Your task to perform on an android device: turn smart compose on in the gmail app Image 0: 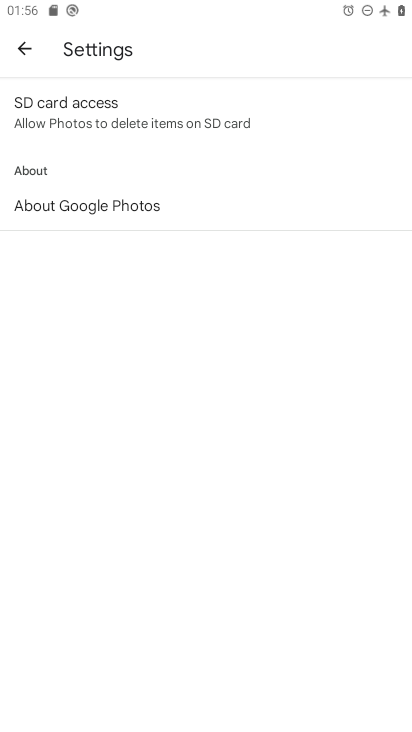
Step 0: press home button
Your task to perform on an android device: turn smart compose on in the gmail app Image 1: 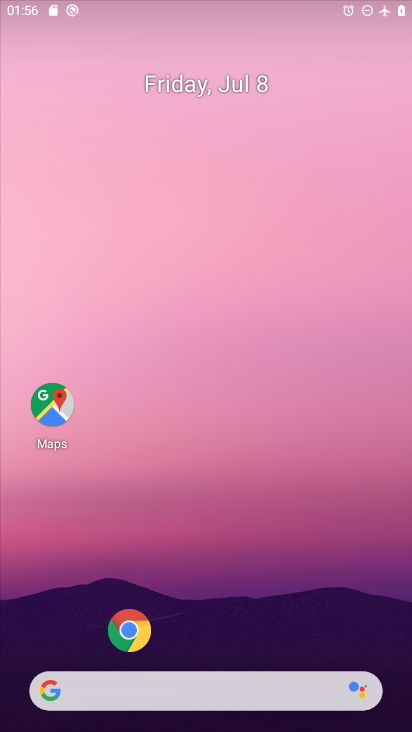
Step 1: drag from (325, 684) to (398, 523)
Your task to perform on an android device: turn smart compose on in the gmail app Image 2: 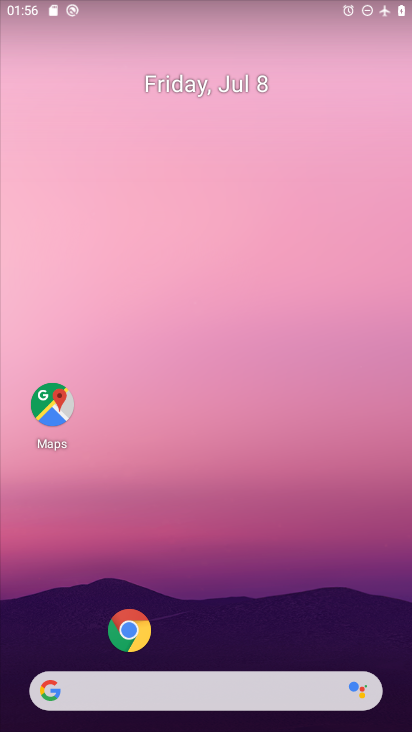
Step 2: drag from (290, 630) to (342, 3)
Your task to perform on an android device: turn smart compose on in the gmail app Image 3: 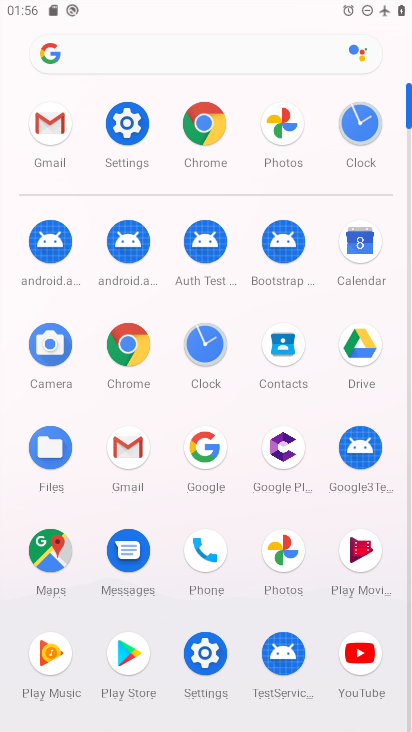
Step 3: click (134, 446)
Your task to perform on an android device: turn smart compose on in the gmail app Image 4: 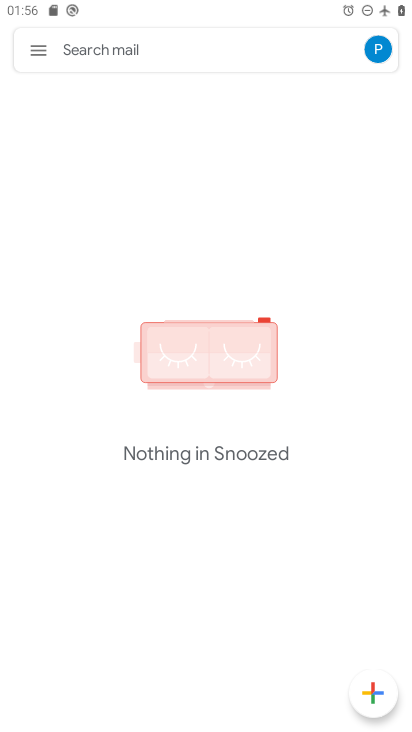
Step 4: click (39, 47)
Your task to perform on an android device: turn smart compose on in the gmail app Image 5: 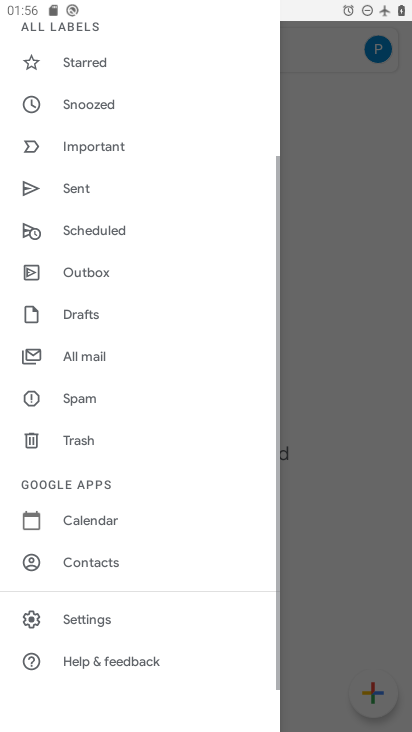
Step 5: click (112, 618)
Your task to perform on an android device: turn smart compose on in the gmail app Image 6: 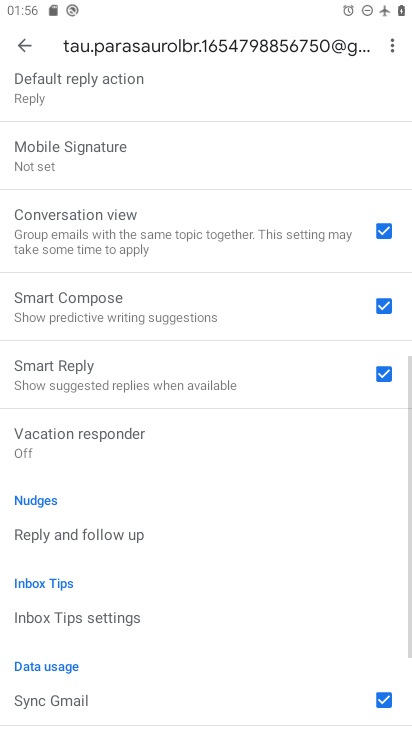
Step 6: task complete